Your task to perform on an android device: turn off translation in the chrome app Image 0: 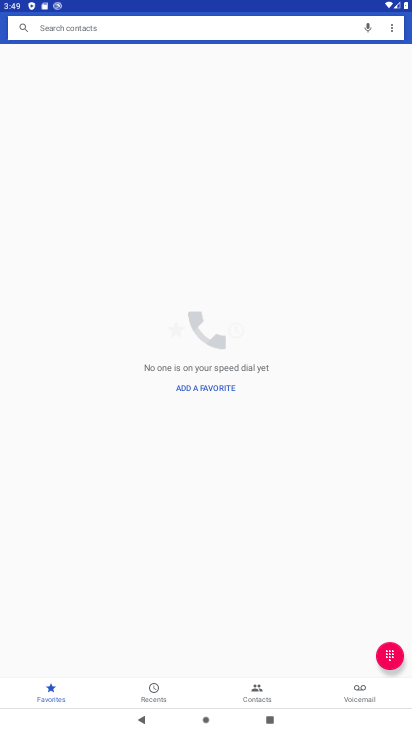
Step 0: press home button
Your task to perform on an android device: turn off translation in the chrome app Image 1: 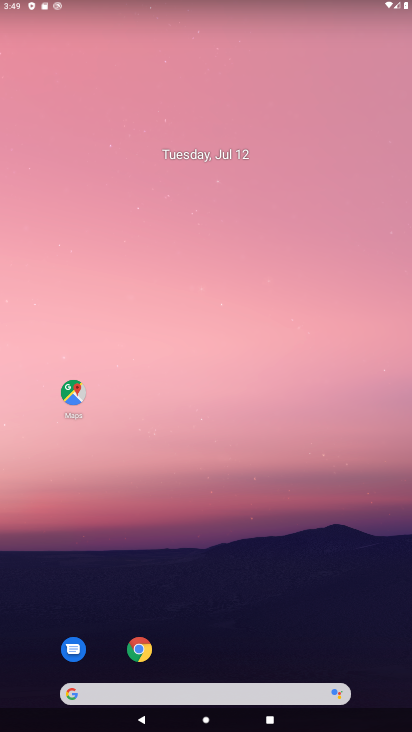
Step 1: click (136, 648)
Your task to perform on an android device: turn off translation in the chrome app Image 2: 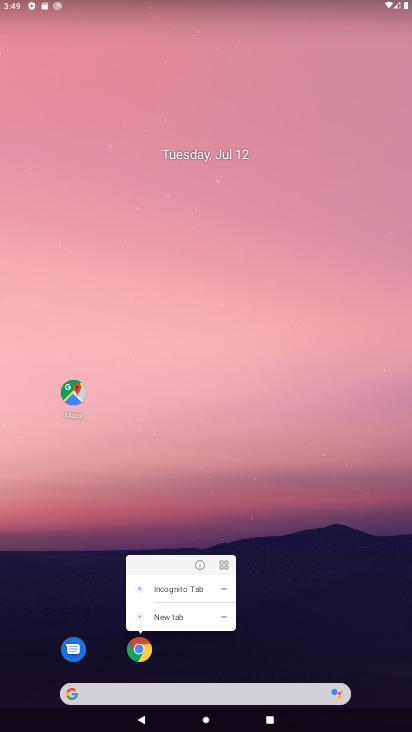
Step 2: click (141, 648)
Your task to perform on an android device: turn off translation in the chrome app Image 3: 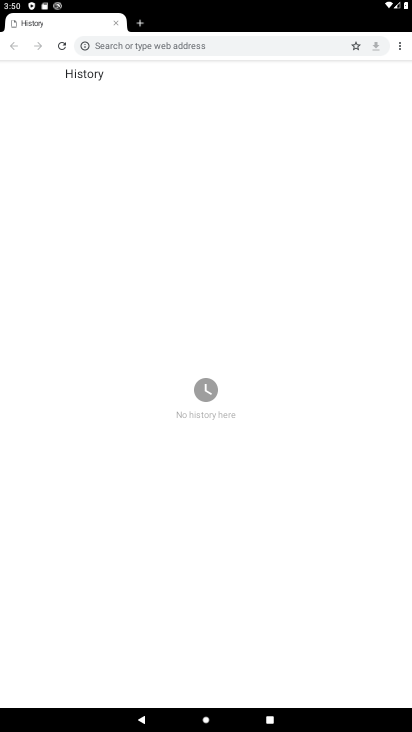
Step 3: click (144, 18)
Your task to perform on an android device: turn off translation in the chrome app Image 4: 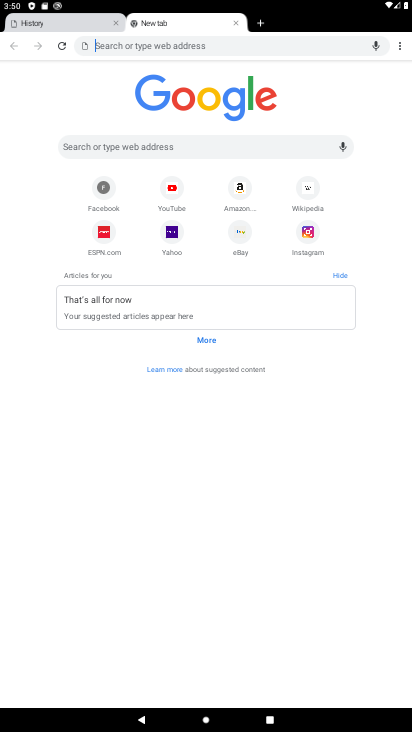
Step 4: click (396, 43)
Your task to perform on an android device: turn off translation in the chrome app Image 5: 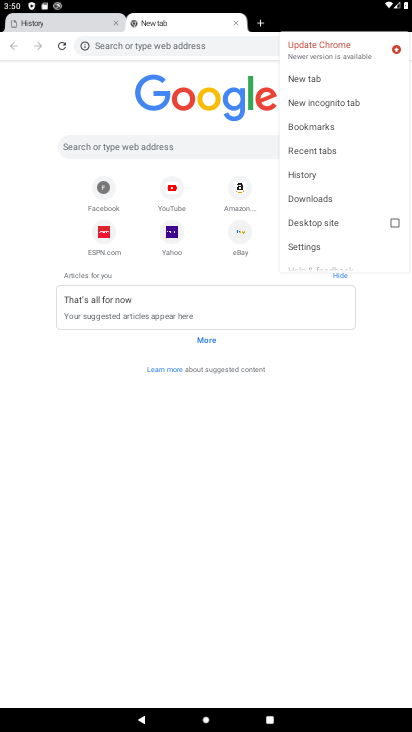
Step 5: click (328, 242)
Your task to perform on an android device: turn off translation in the chrome app Image 6: 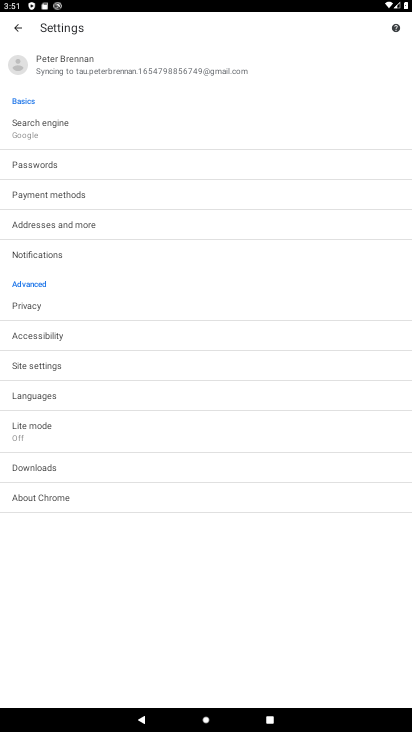
Step 6: click (66, 392)
Your task to perform on an android device: turn off translation in the chrome app Image 7: 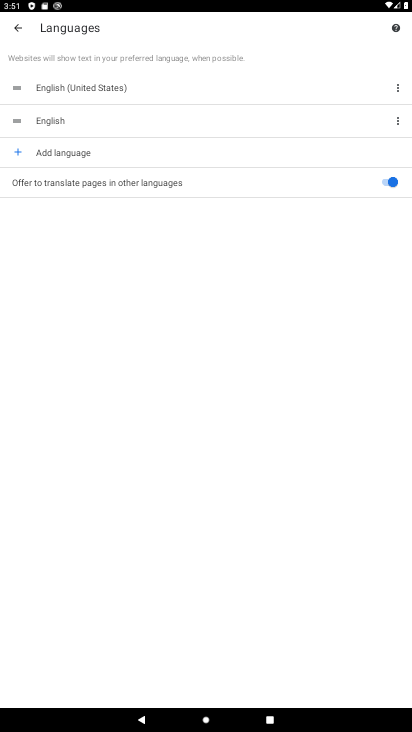
Step 7: click (387, 178)
Your task to perform on an android device: turn off translation in the chrome app Image 8: 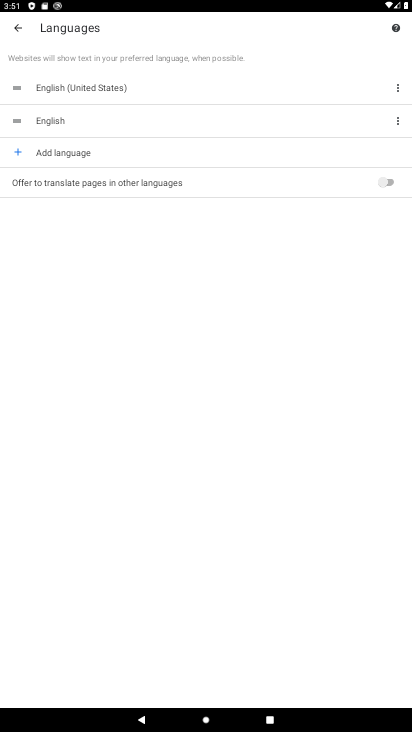
Step 8: task complete